Your task to perform on an android device: Go to battery settings Image 0: 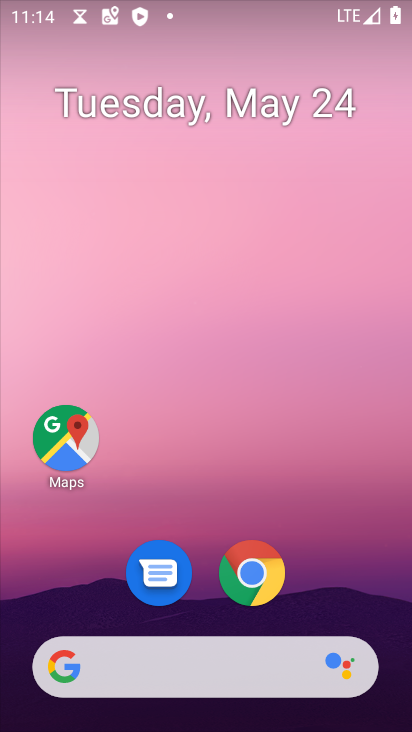
Step 0: drag from (81, 625) to (256, 126)
Your task to perform on an android device: Go to battery settings Image 1: 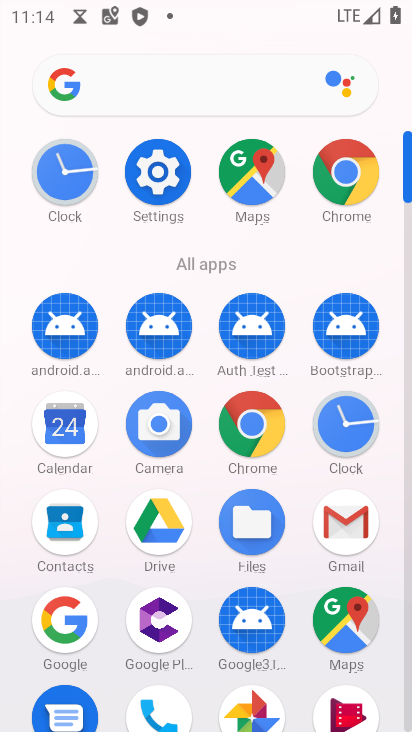
Step 1: drag from (172, 662) to (229, 304)
Your task to perform on an android device: Go to battery settings Image 2: 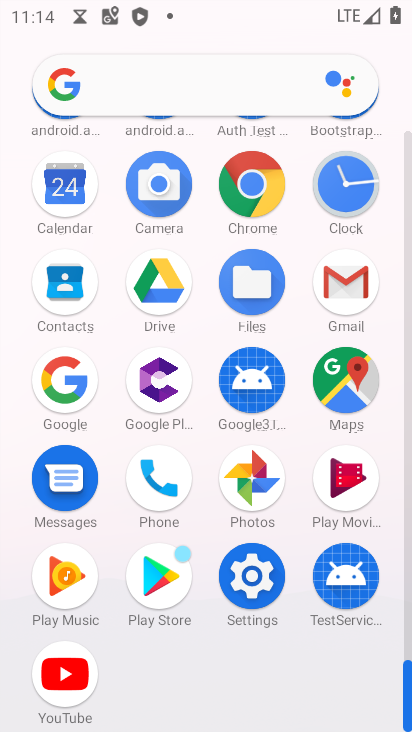
Step 2: click (244, 568)
Your task to perform on an android device: Go to battery settings Image 3: 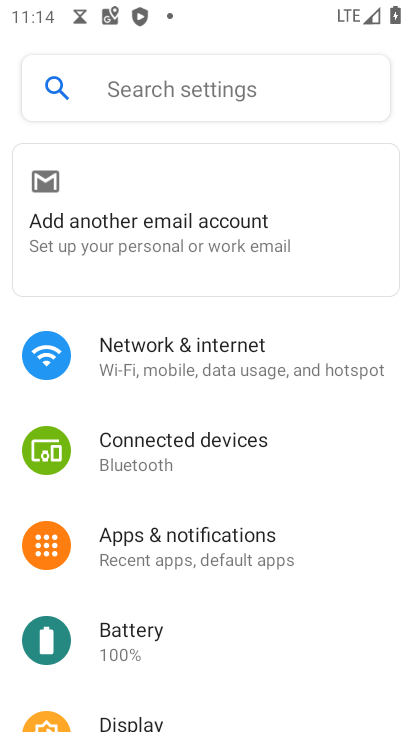
Step 3: drag from (138, 628) to (203, 355)
Your task to perform on an android device: Go to battery settings Image 4: 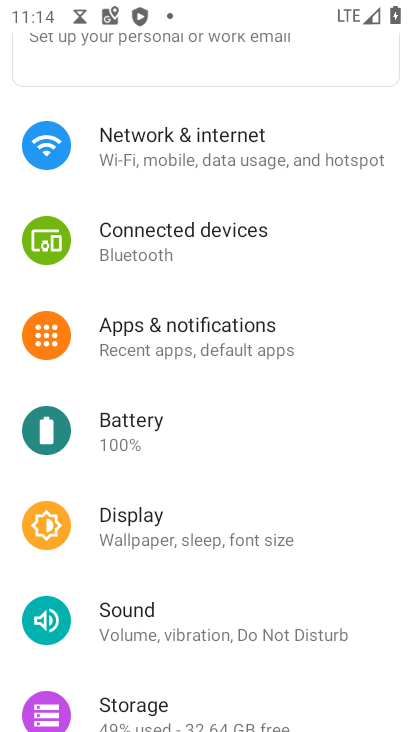
Step 4: click (168, 422)
Your task to perform on an android device: Go to battery settings Image 5: 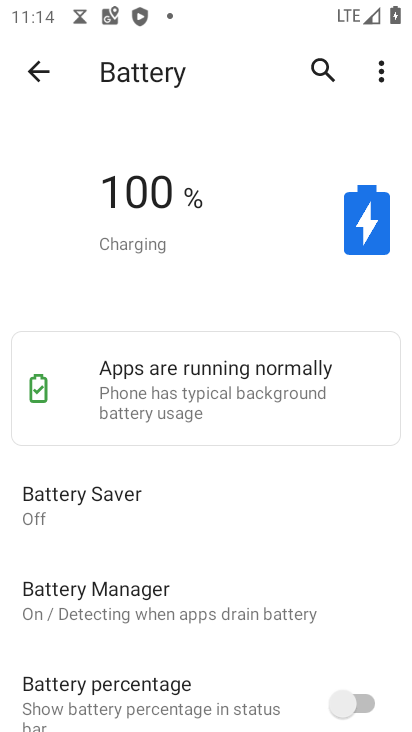
Step 5: task complete